Your task to perform on an android device: change the clock display to analog Image 0: 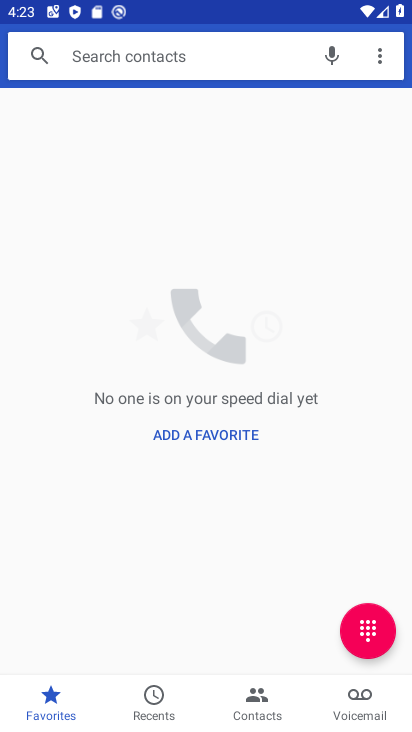
Step 0: press home button
Your task to perform on an android device: change the clock display to analog Image 1: 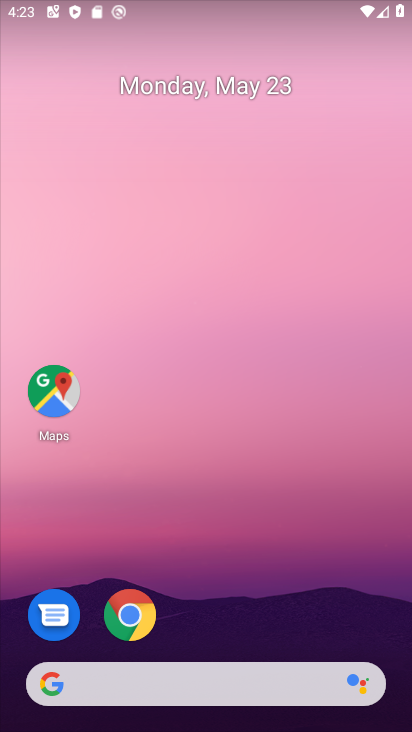
Step 1: drag from (254, 596) to (282, 36)
Your task to perform on an android device: change the clock display to analog Image 2: 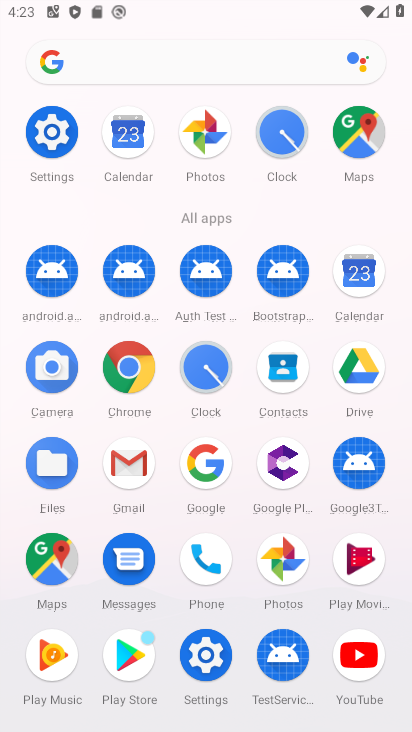
Step 2: click (280, 131)
Your task to perform on an android device: change the clock display to analog Image 3: 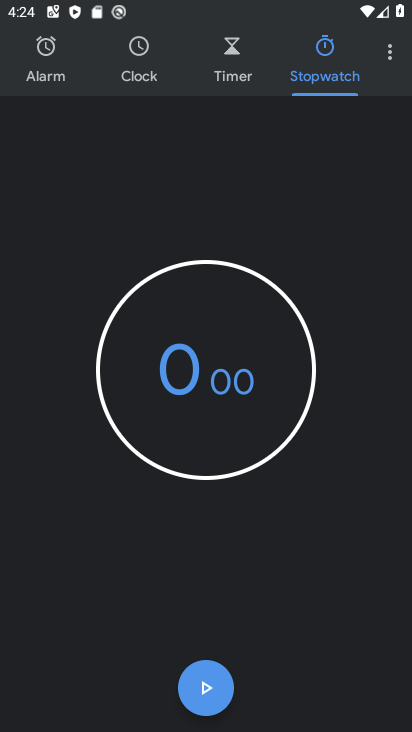
Step 3: click (382, 54)
Your task to perform on an android device: change the clock display to analog Image 4: 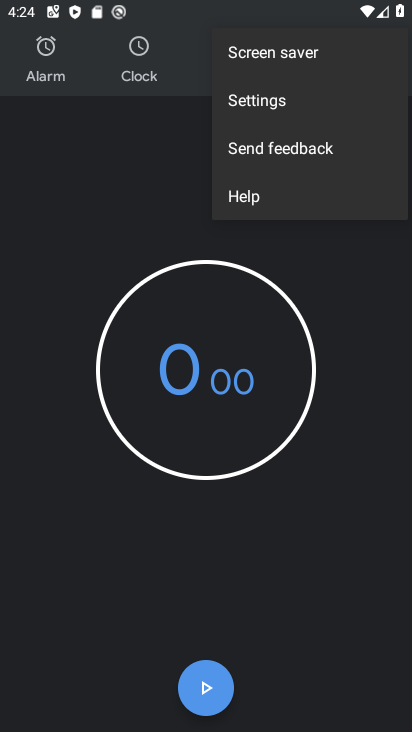
Step 4: click (329, 99)
Your task to perform on an android device: change the clock display to analog Image 5: 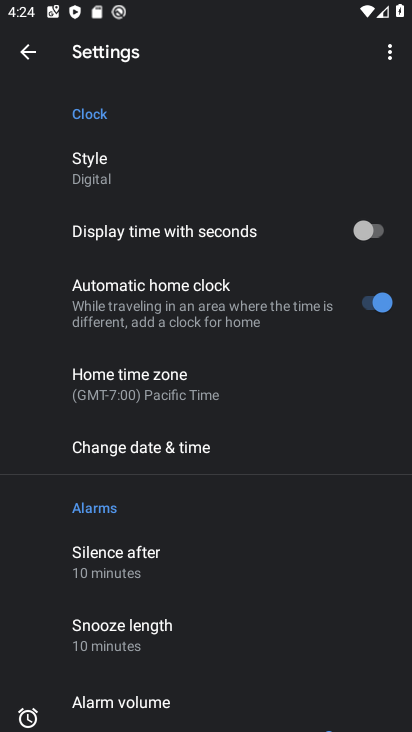
Step 5: drag from (209, 615) to (251, 301)
Your task to perform on an android device: change the clock display to analog Image 6: 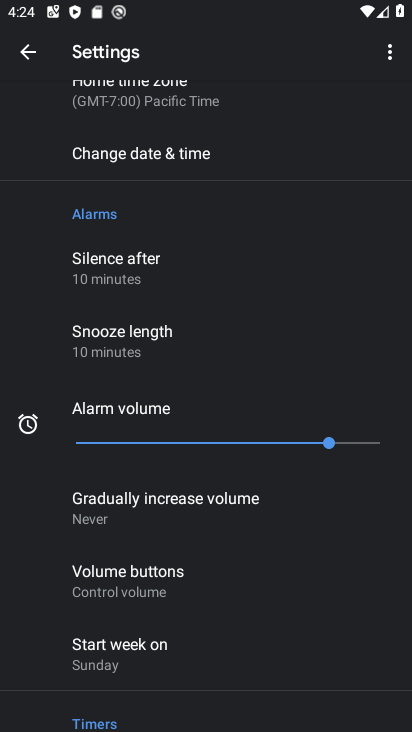
Step 6: drag from (256, 300) to (240, 590)
Your task to perform on an android device: change the clock display to analog Image 7: 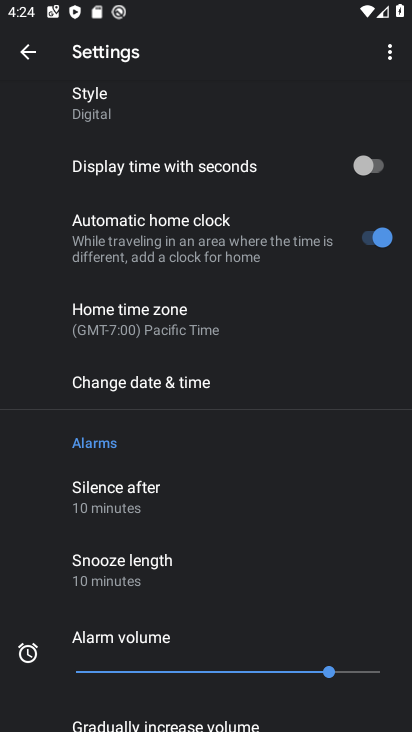
Step 7: click (125, 108)
Your task to perform on an android device: change the clock display to analog Image 8: 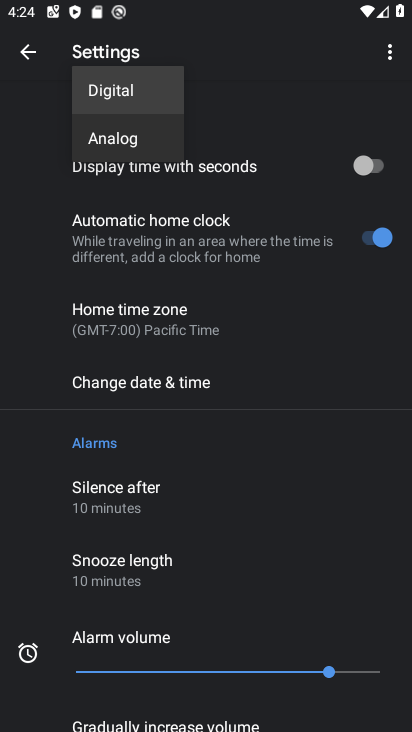
Step 8: click (134, 145)
Your task to perform on an android device: change the clock display to analog Image 9: 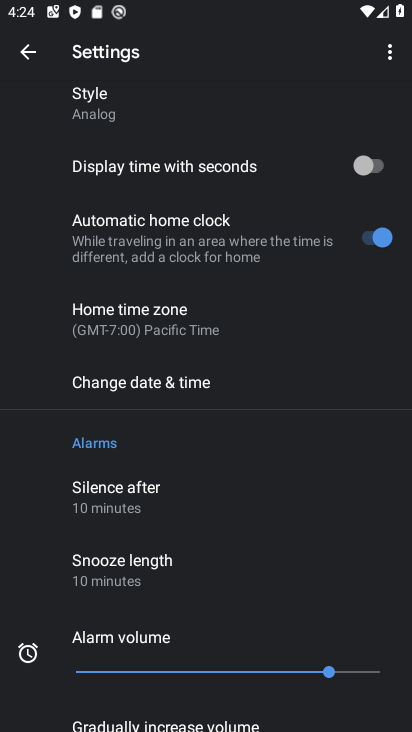
Step 9: click (35, 52)
Your task to perform on an android device: change the clock display to analog Image 10: 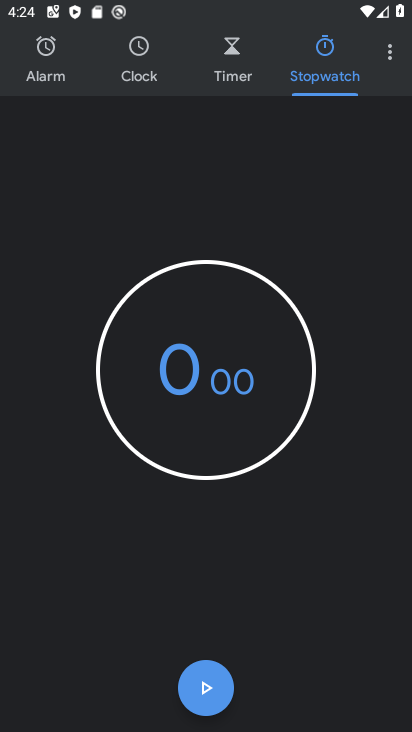
Step 10: click (135, 50)
Your task to perform on an android device: change the clock display to analog Image 11: 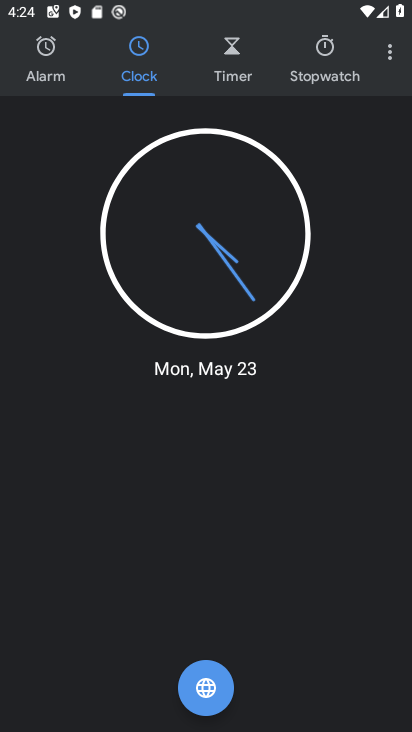
Step 11: task complete